Your task to perform on an android device: Do I have any events tomorrow? Image 0: 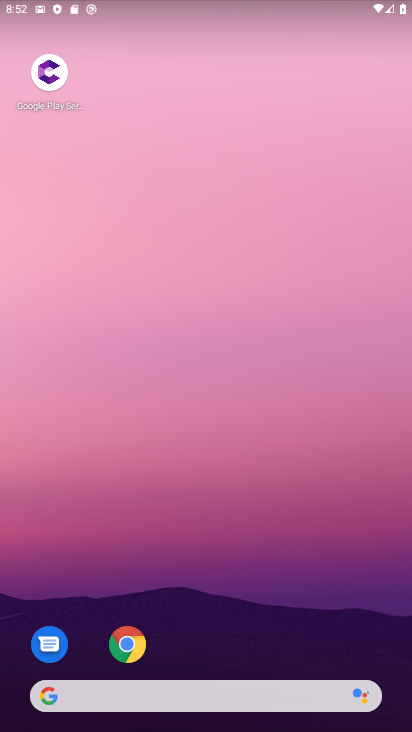
Step 0: drag from (183, 486) to (204, 123)
Your task to perform on an android device: Do I have any events tomorrow? Image 1: 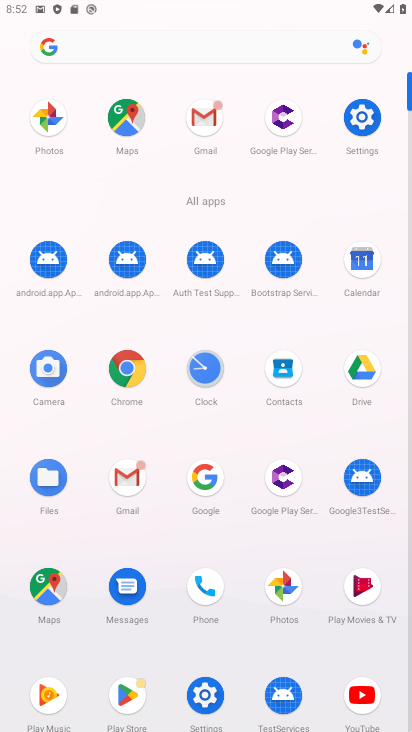
Step 1: click (365, 287)
Your task to perform on an android device: Do I have any events tomorrow? Image 2: 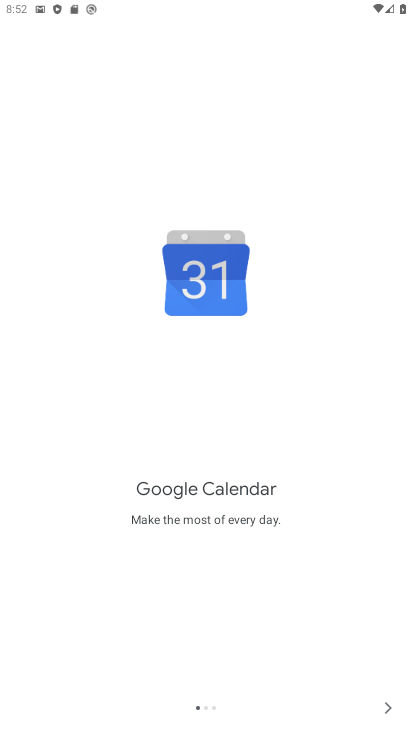
Step 2: click (384, 704)
Your task to perform on an android device: Do I have any events tomorrow? Image 3: 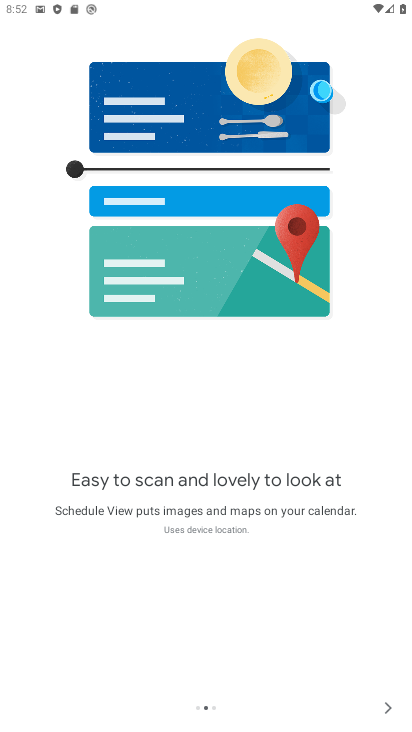
Step 3: click (384, 704)
Your task to perform on an android device: Do I have any events tomorrow? Image 4: 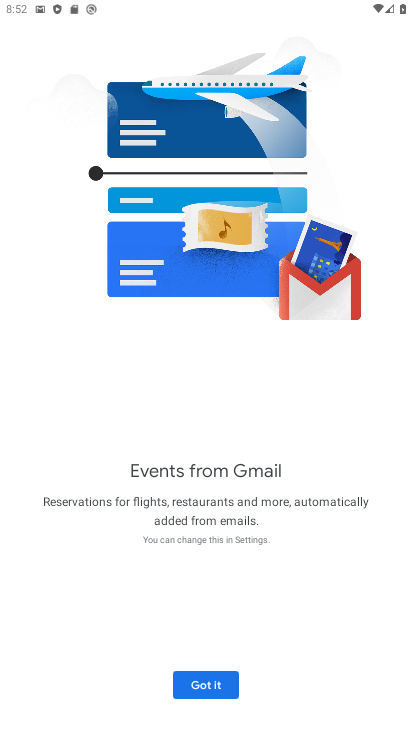
Step 4: click (182, 692)
Your task to perform on an android device: Do I have any events tomorrow? Image 5: 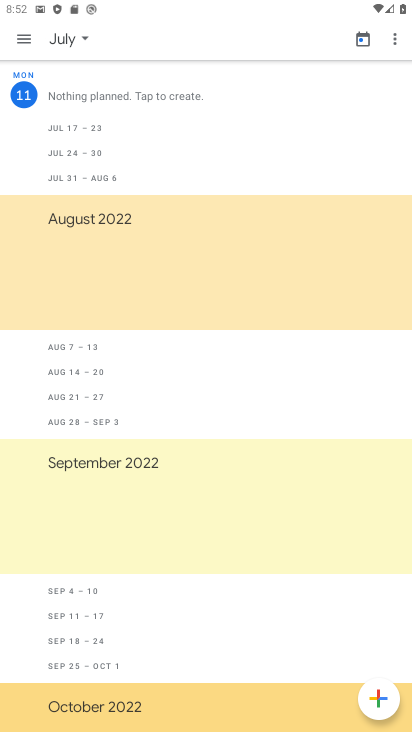
Step 5: click (20, 37)
Your task to perform on an android device: Do I have any events tomorrow? Image 6: 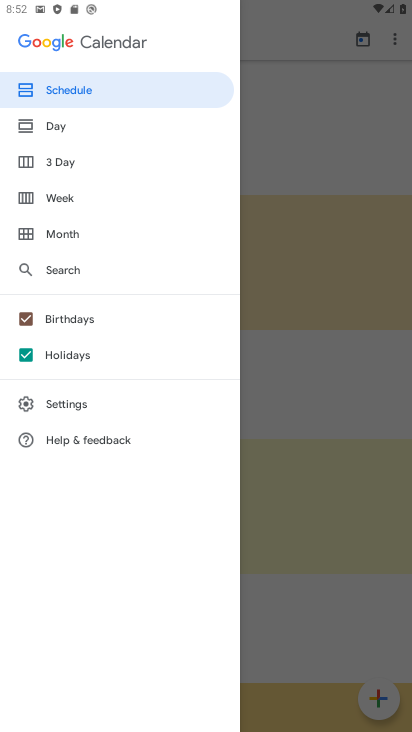
Step 6: click (57, 205)
Your task to perform on an android device: Do I have any events tomorrow? Image 7: 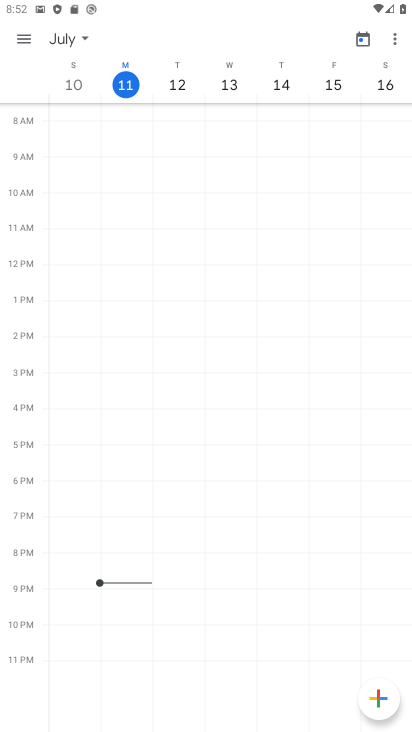
Step 7: task complete